Your task to perform on an android device: open a new tab in the chrome app Image 0: 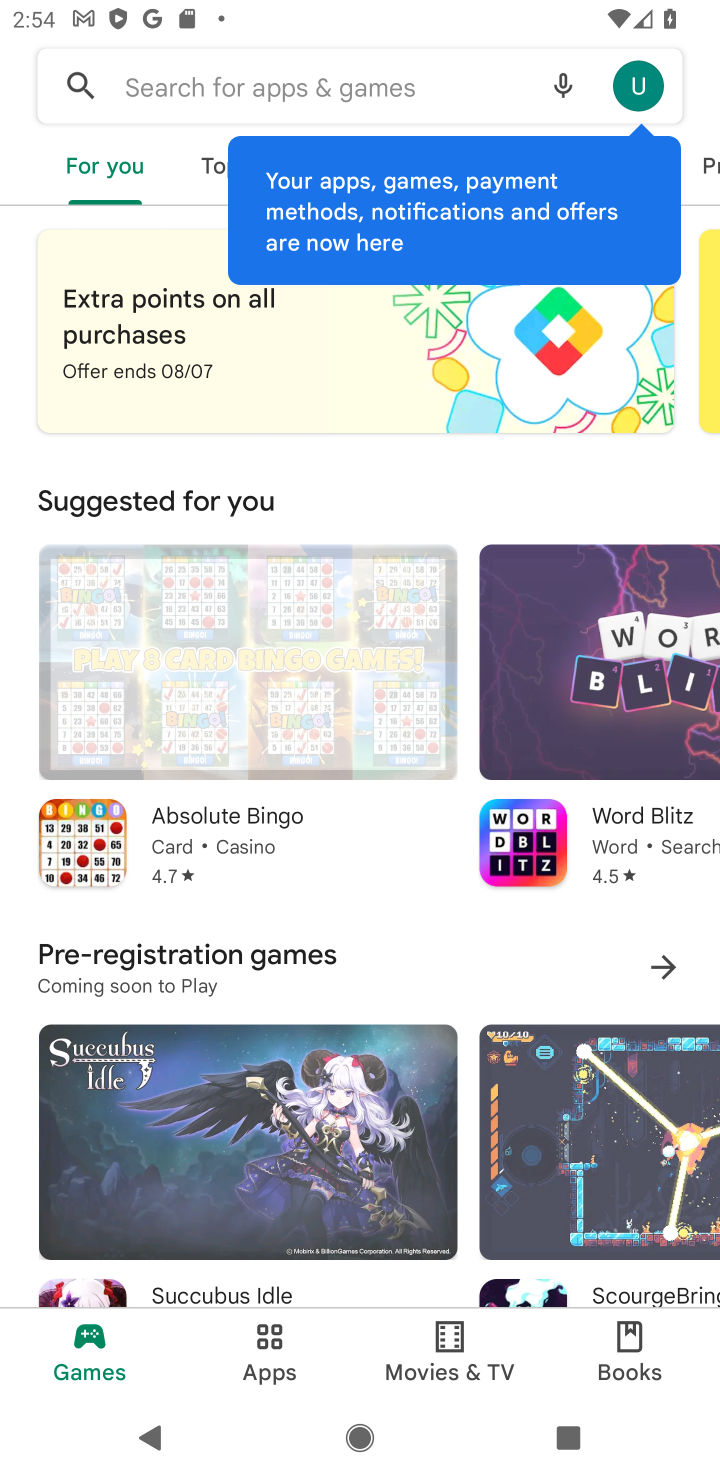
Step 0: press home button
Your task to perform on an android device: open a new tab in the chrome app Image 1: 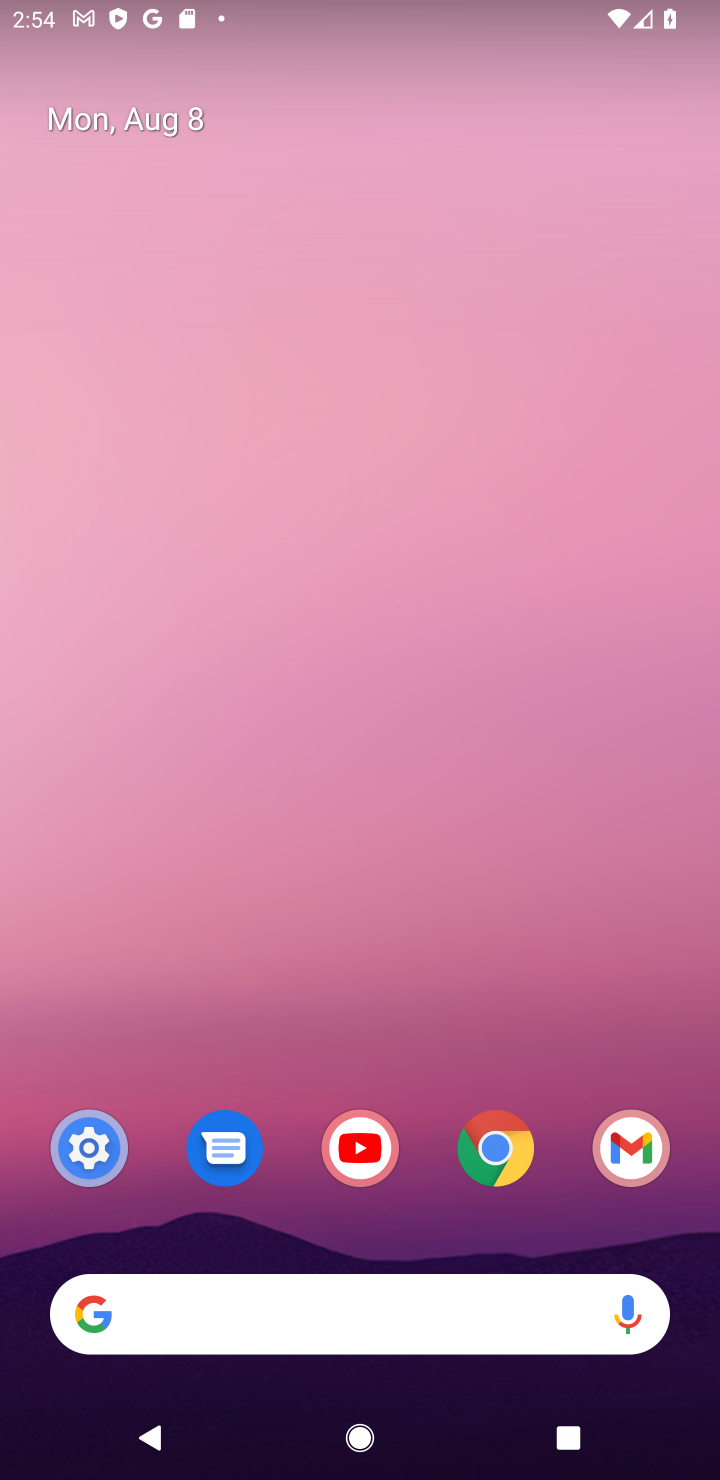
Step 1: click (491, 1171)
Your task to perform on an android device: open a new tab in the chrome app Image 2: 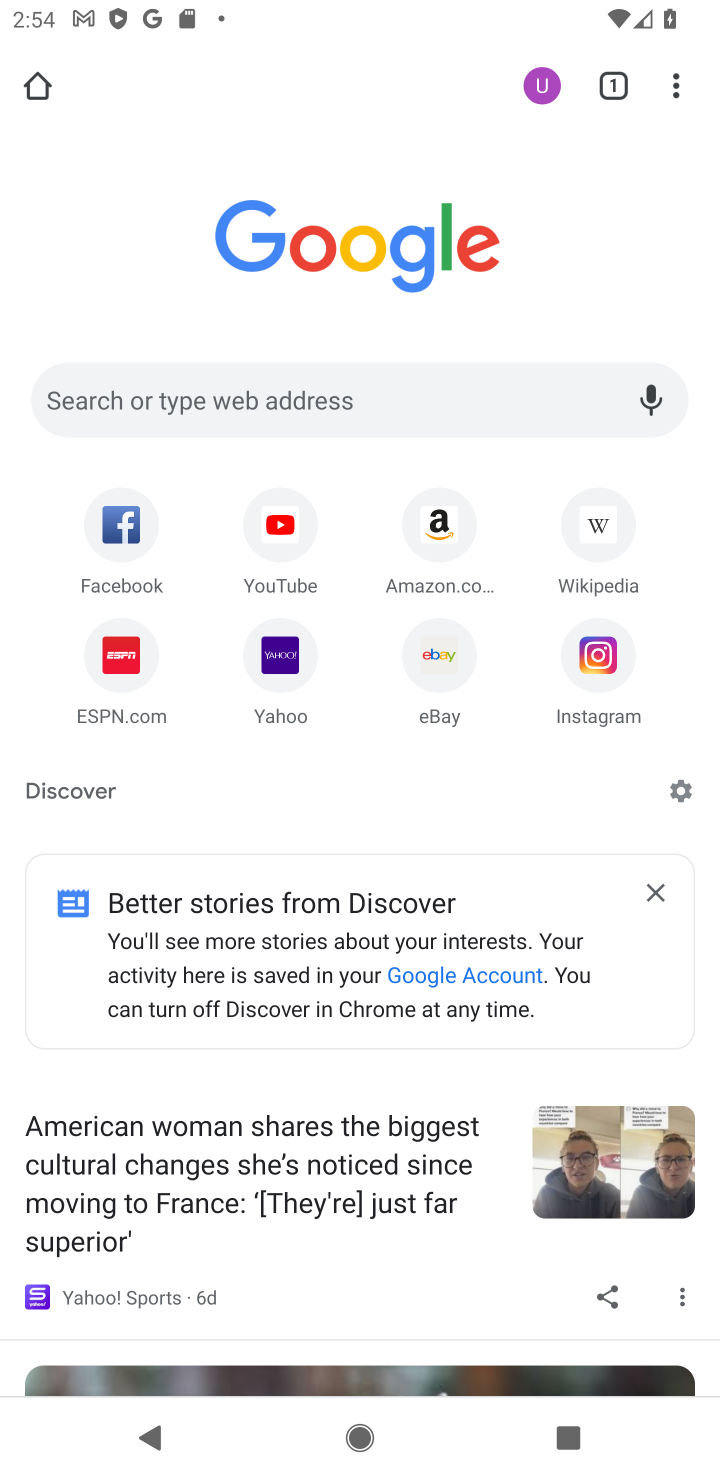
Step 2: click (667, 77)
Your task to perform on an android device: open a new tab in the chrome app Image 3: 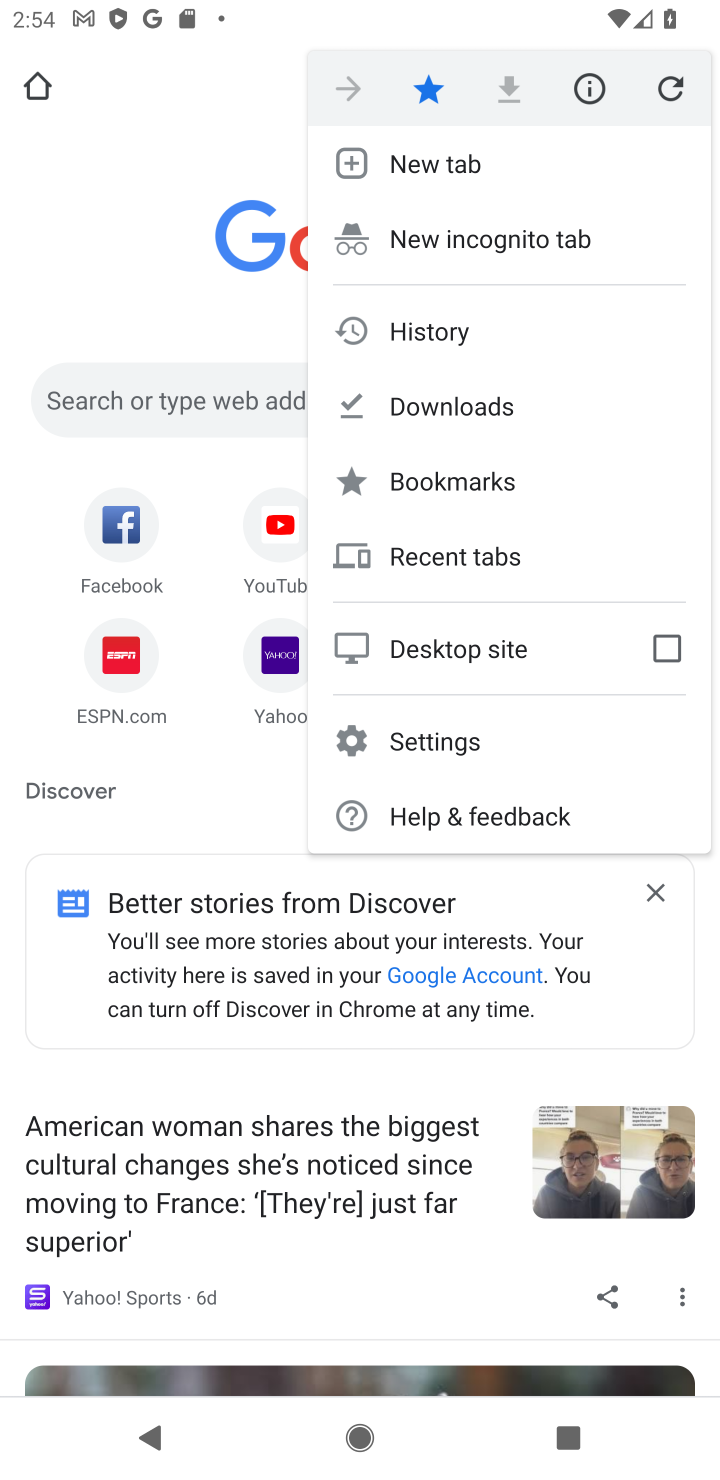
Step 3: click (472, 152)
Your task to perform on an android device: open a new tab in the chrome app Image 4: 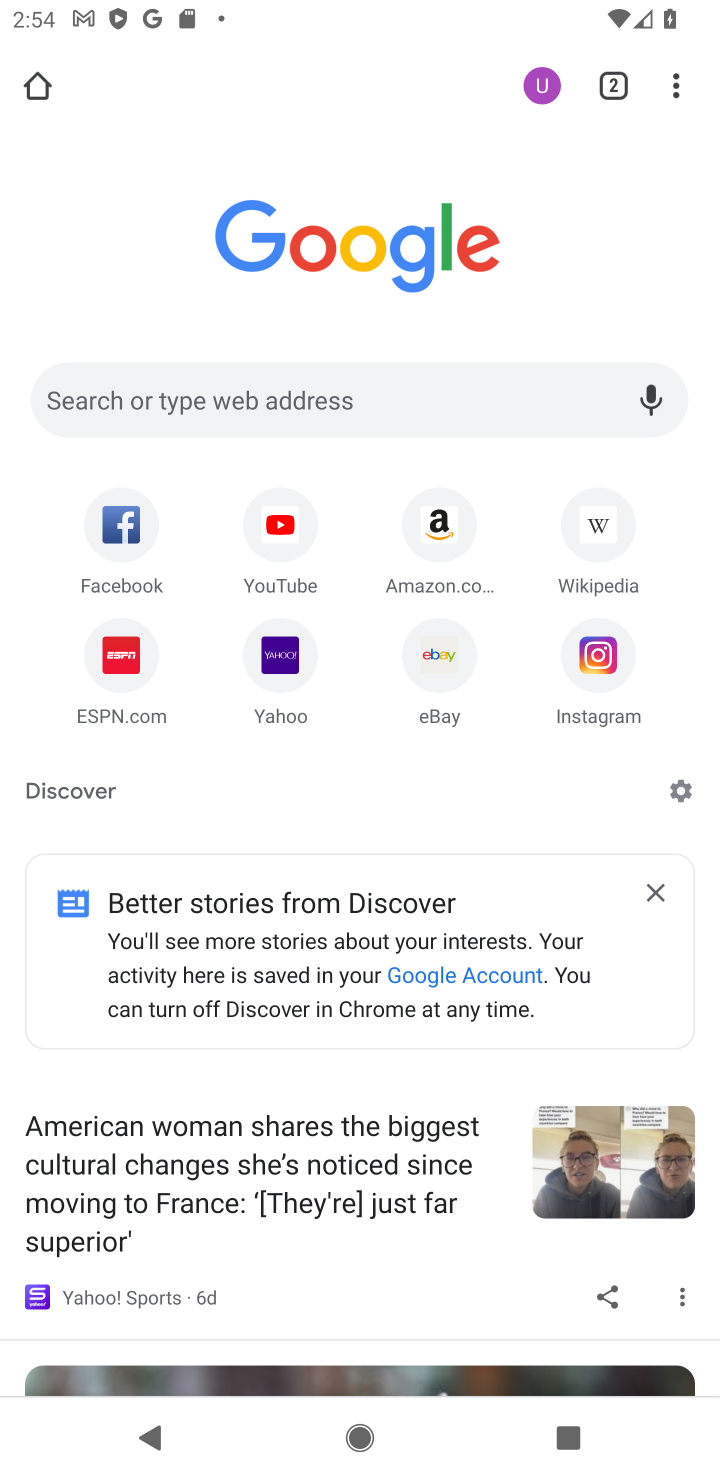
Step 4: task complete